Your task to perform on an android device: Open Google Chrome and open the bookmarks view Image 0: 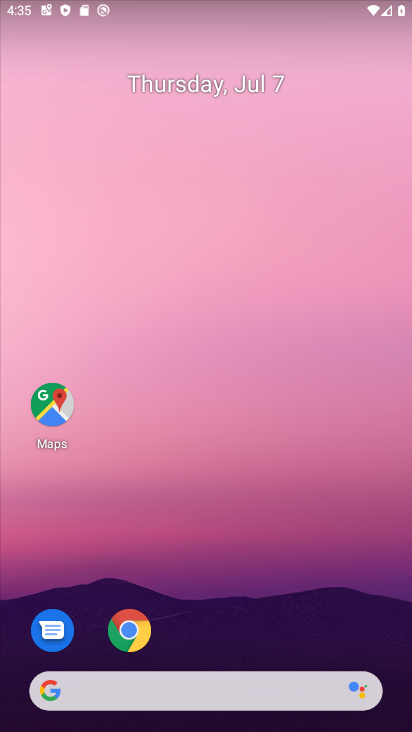
Step 0: click (132, 627)
Your task to perform on an android device: Open Google Chrome and open the bookmarks view Image 1: 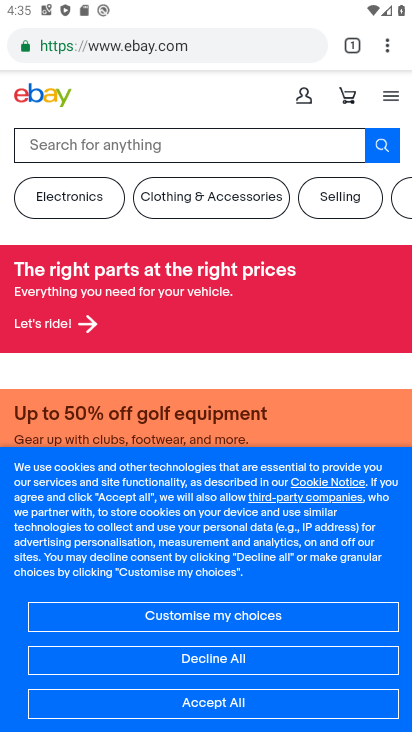
Step 1: click (386, 48)
Your task to perform on an android device: Open Google Chrome and open the bookmarks view Image 2: 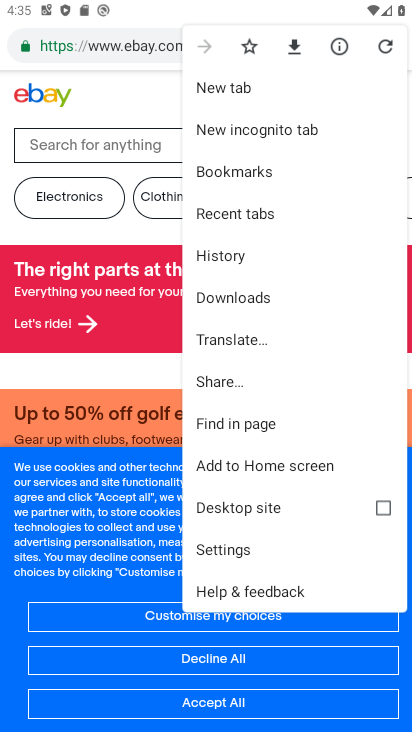
Step 2: click (231, 176)
Your task to perform on an android device: Open Google Chrome and open the bookmarks view Image 3: 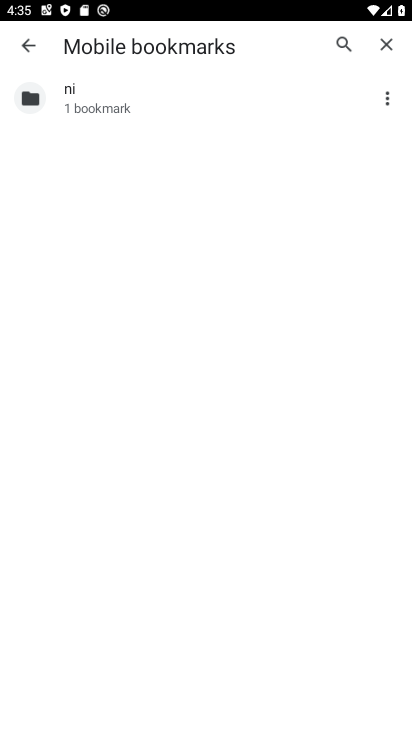
Step 3: task complete